Your task to perform on an android device: create a new album in the google photos Image 0: 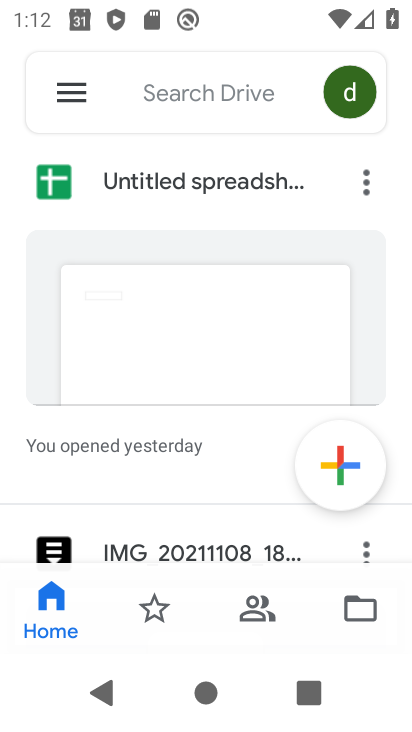
Step 0: press home button
Your task to perform on an android device: create a new album in the google photos Image 1: 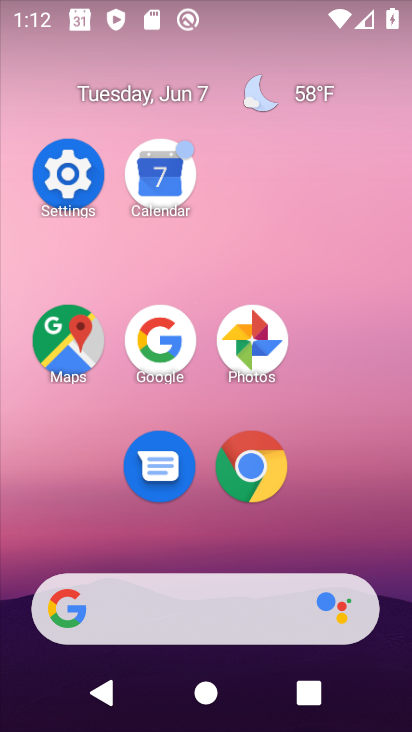
Step 1: click (249, 332)
Your task to perform on an android device: create a new album in the google photos Image 2: 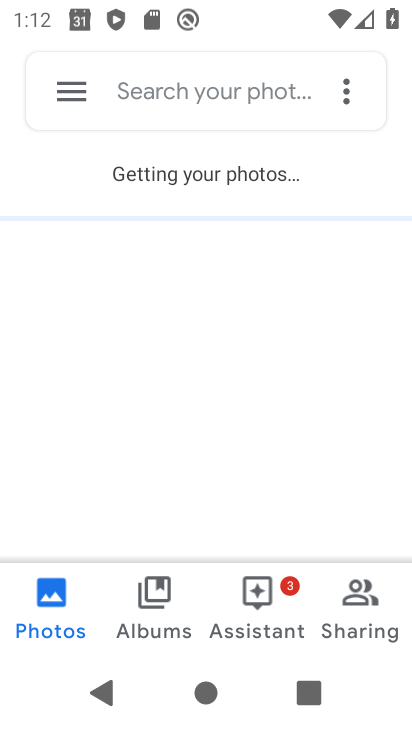
Step 2: click (167, 601)
Your task to perform on an android device: create a new album in the google photos Image 3: 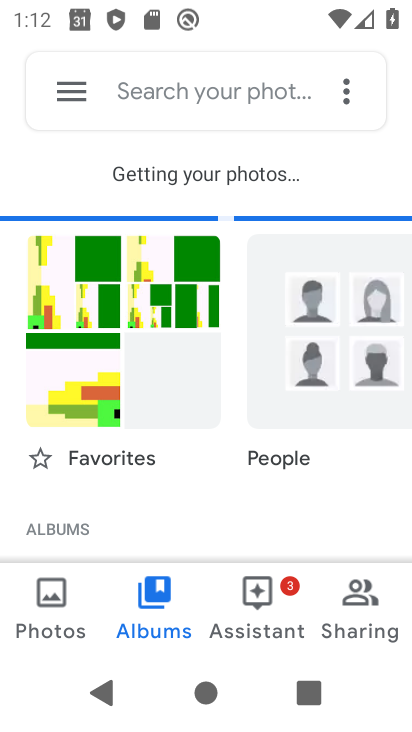
Step 3: drag from (217, 510) to (210, 120)
Your task to perform on an android device: create a new album in the google photos Image 4: 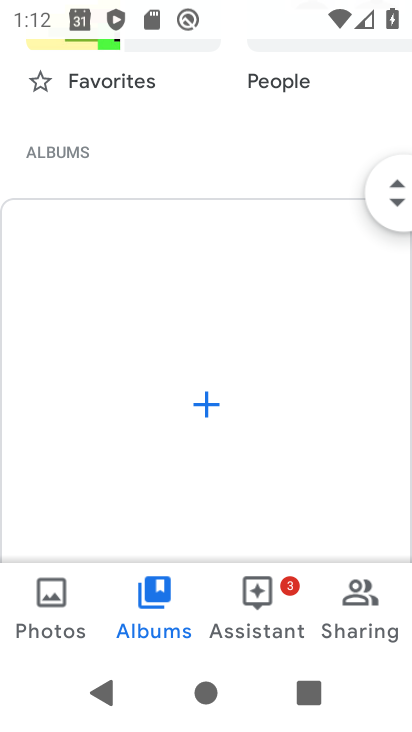
Step 4: click (195, 394)
Your task to perform on an android device: create a new album in the google photos Image 5: 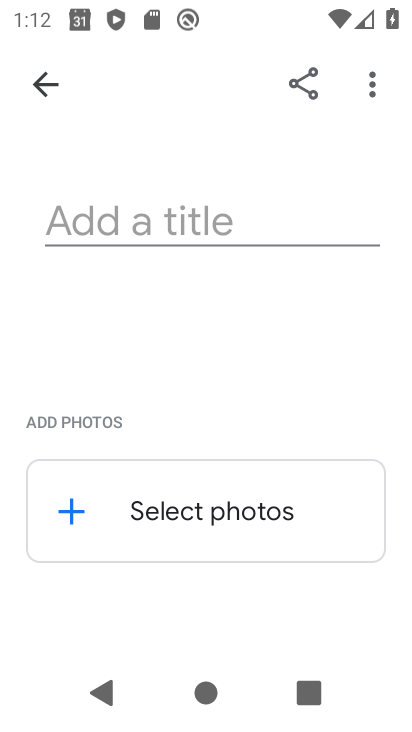
Step 5: click (199, 215)
Your task to perform on an android device: create a new album in the google photos Image 6: 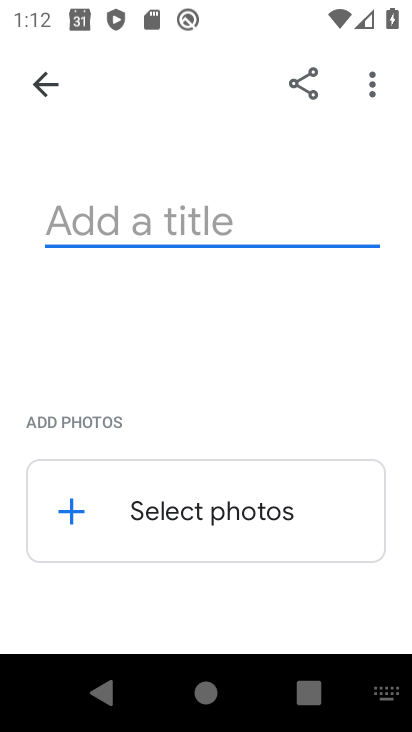
Step 6: type "ppp"
Your task to perform on an android device: create a new album in the google photos Image 7: 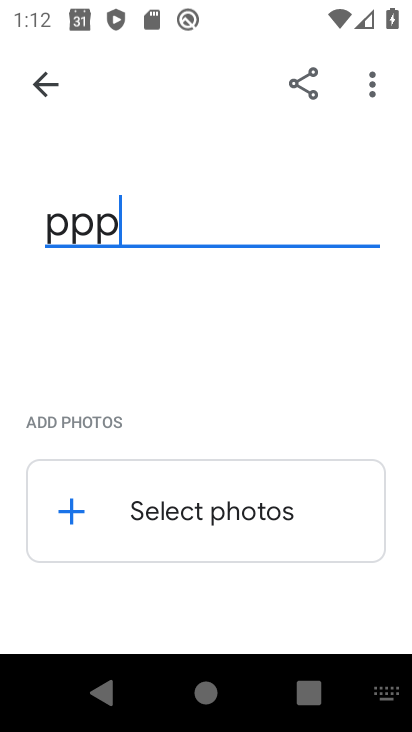
Step 7: click (186, 541)
Your task to perform on an android device: create a new album in the google photos Image 8: 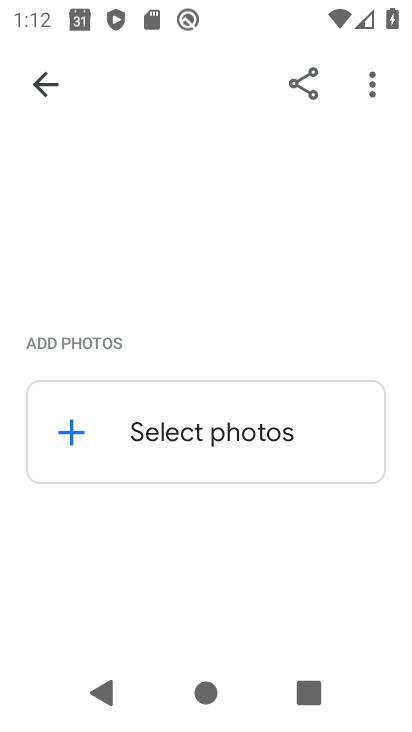
Step 8: click (142, 434)
Your task to perform on an android device: create a new album in the google photos Image 9: 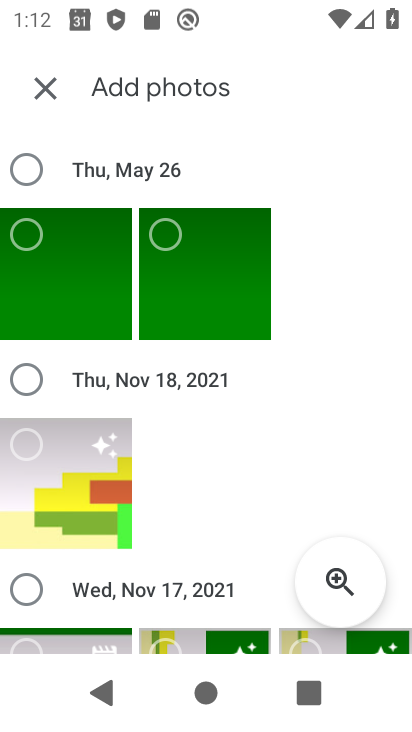
Step 9: click (90, 296)
Your task to perform on an android device: create a new album in the google photos Image 10: 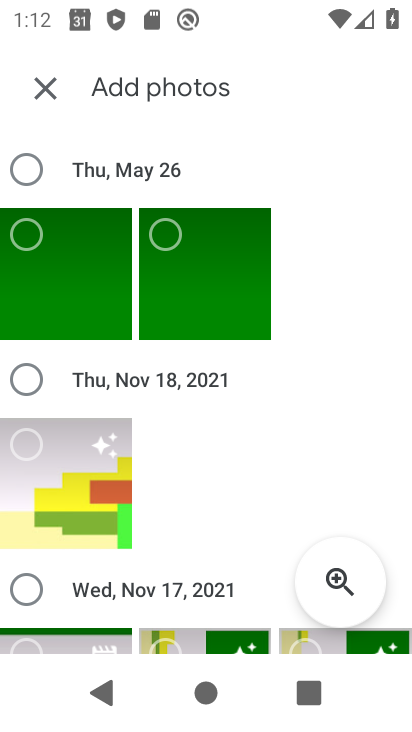
Step 10: click (213, 275)
Your task to perform on an android device: create a new album in the google photos Image 11: 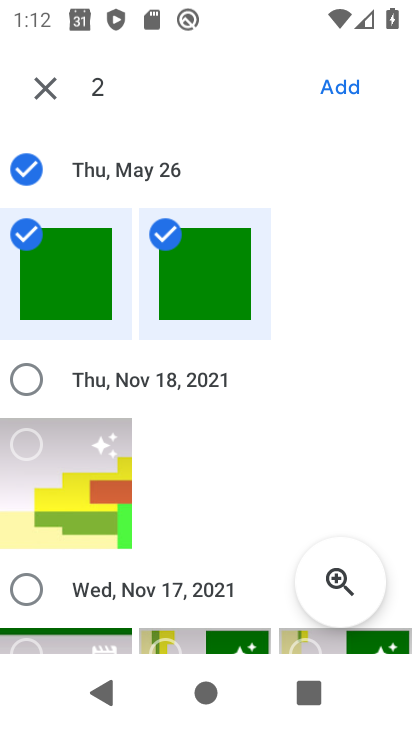
Step 11: click (330, 95)
Your task to perform on an android device: create a new album in the google photos Image 12: 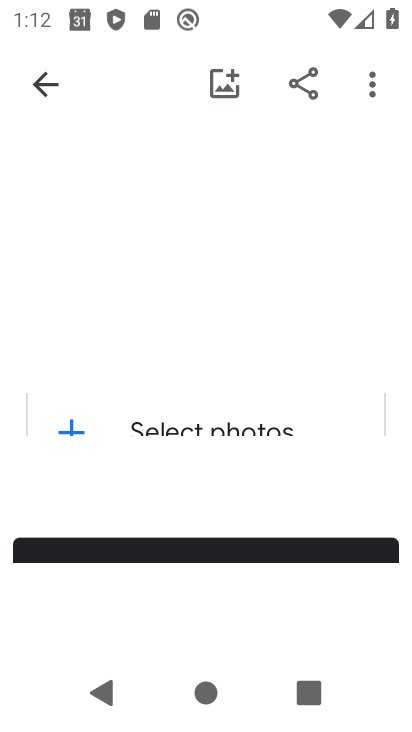
Step 12: task complete